Your task to perform on an android device: turn off location Image 0: 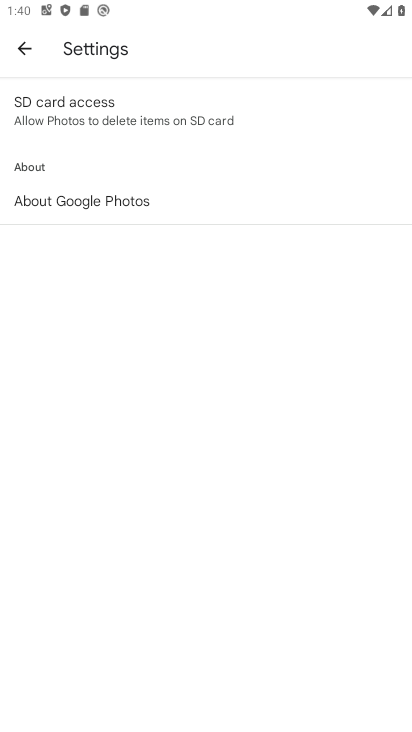
Step 0: press home button
Your task to perform on an android device: turn off location Image 1: 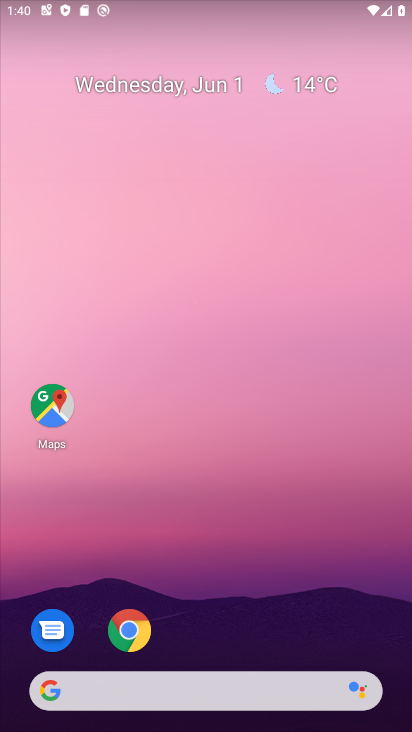
Step 1: drag from (210, 642) to (284, 133)
Your task to perform on an android device: turn off location Image 2: 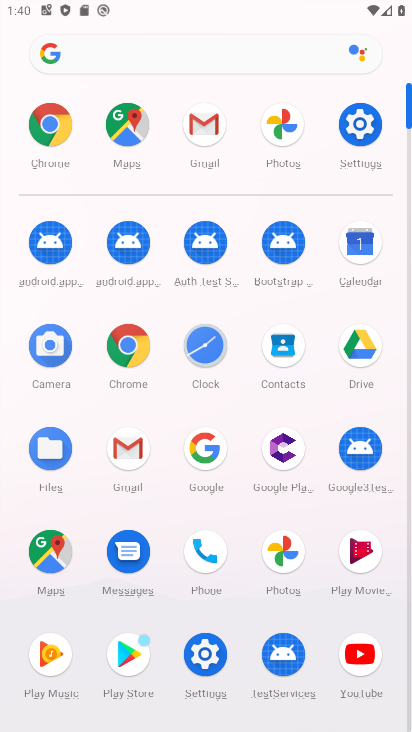
Step 2: click (357, 121)
Your task to perform on an android device: turn off location Image 3: 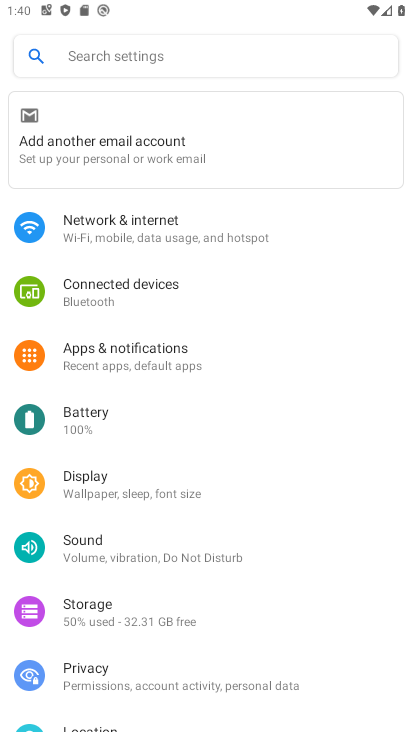
Step 3: drag from (166, 641) to (234, 122)
Your task to perform on an android device: turn off location Image 4: 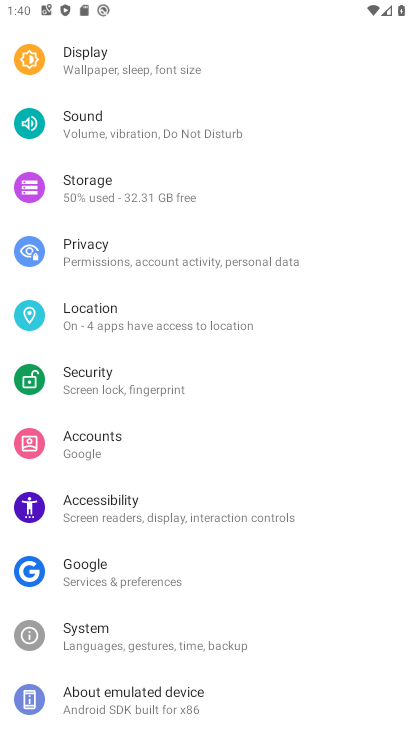
Step 4: click (140, 308)
Your task to perform on an android device: turn off location Image 5: 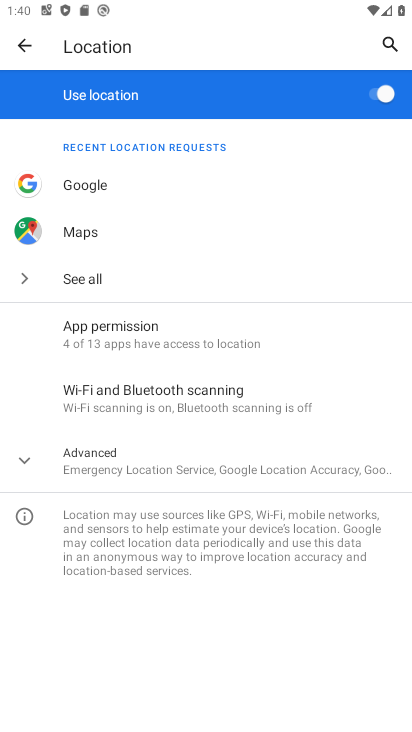
Step 5: click (375, 91)
Your task to perform on an android device: turn off location Image 6: 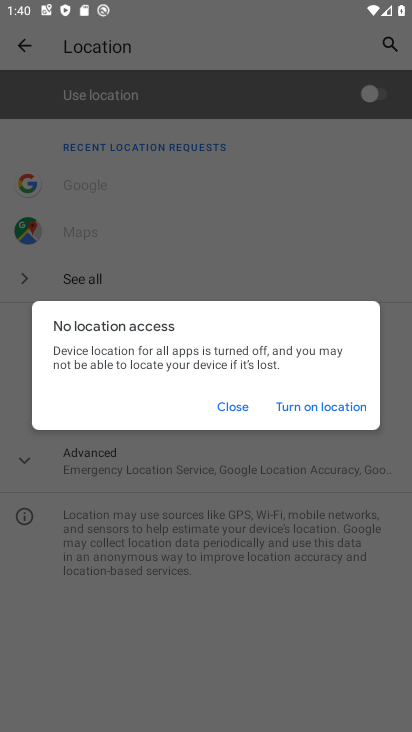
Step 6: task complete